Your task to perform on an android device: Open the calendar and show me this week's events? Image 0: 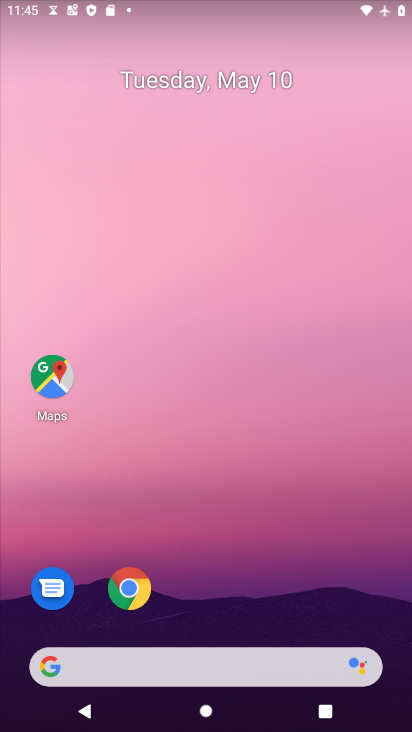
Step 0: drag from (261, 642) to (154, 254)
Your task to perform on an android device: Open the calendar and show me this week's events? Image 1: 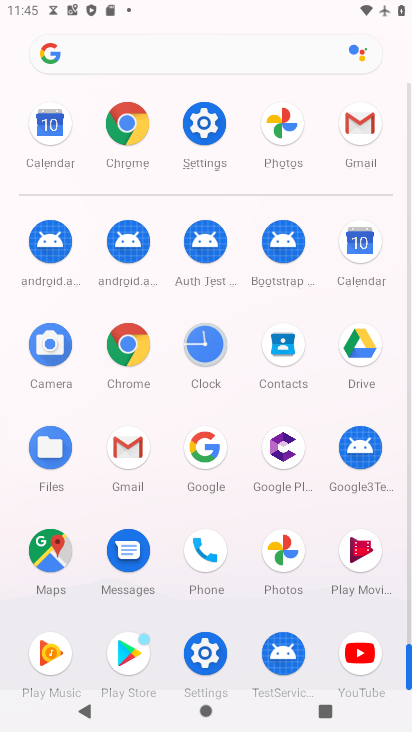
Step 1: click (353, 243)
Your task to perform on an android device: Open the calendar and show me this week's events? Image 2: 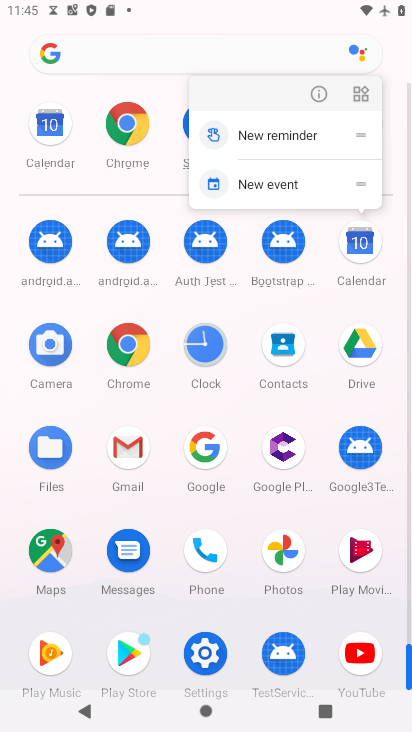
Step 2: click (356, 243)
Your task to perform on an android device: Open the calendar and show me this week's events? Image 3: 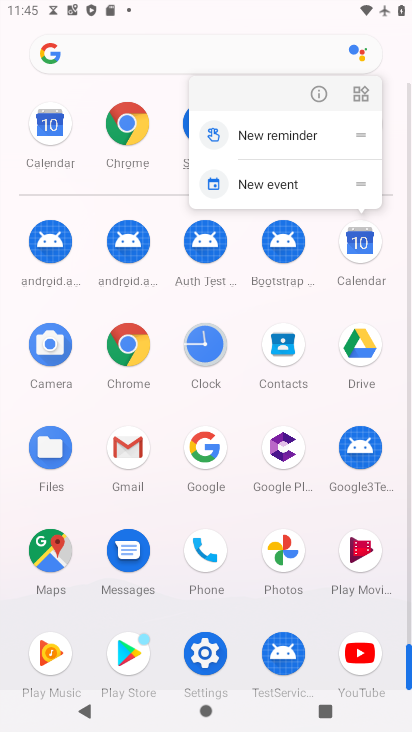
Step 3: click (356, 243)
Your task to perform on an android device: Open the calendar and show me this week's events? Image 4: 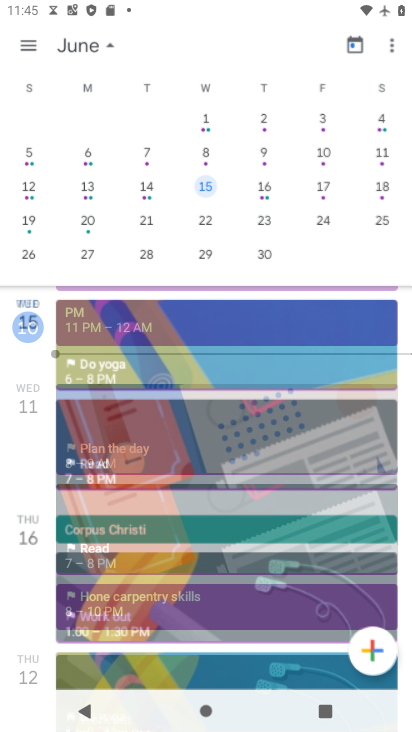
Step 4: click (356, 243)
Your task to perform on an android device: Open the calendar and show me this week's events? Image 5: 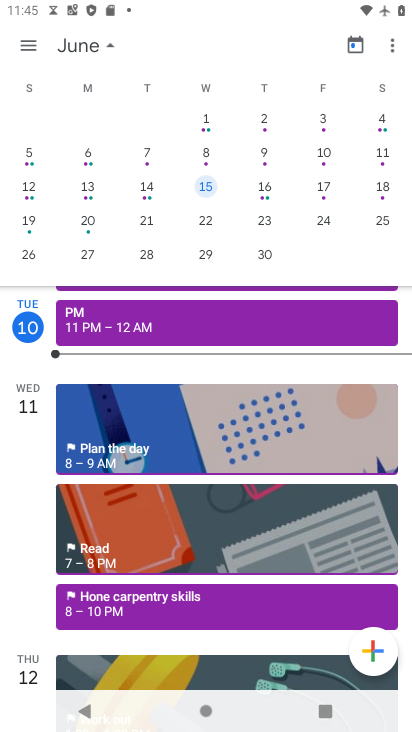
Step 5: drag from (123, 523) to (135, 307)
Your task to perform on an android device: Open the calendar and show me this week's events? Image 6: 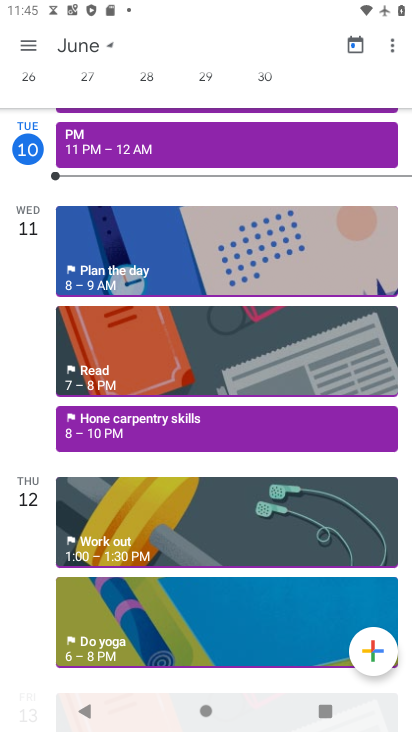
Step 6: drag from (206, 410) to (194, 235)
Your task to perform on an android device: Open the calendar and show me this week's events? Image 7: 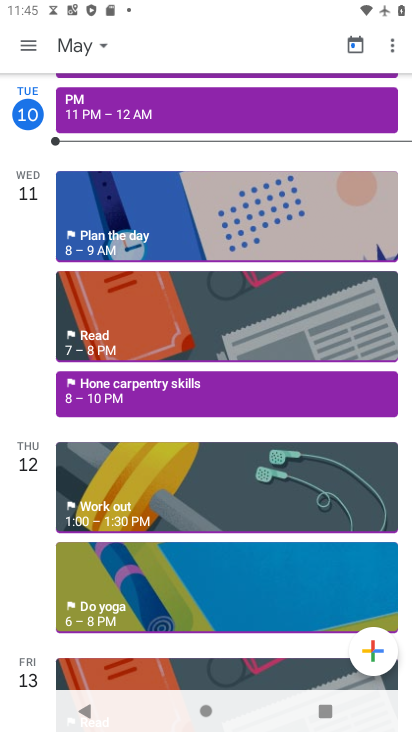
Step 7: drag from (128, 233) to (202, 621)
Your task to perform on an android device: Open the calendar and show me this week's events? Image 8: 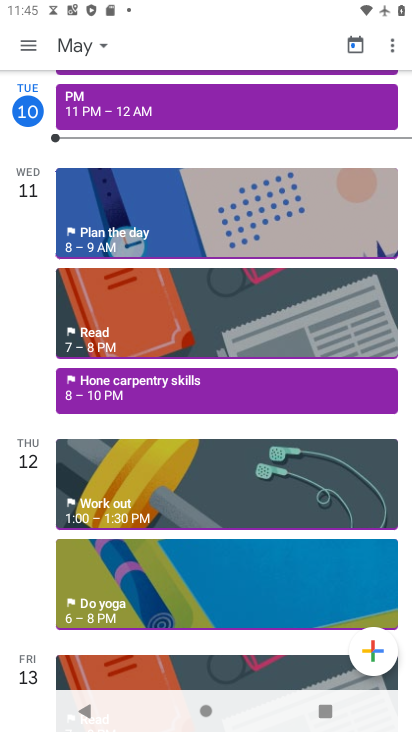
Step 8: drag from (213, 219) to (171, 635)
Your task to perform on an android device: Open the calendar and show me this week's events? Image 9: 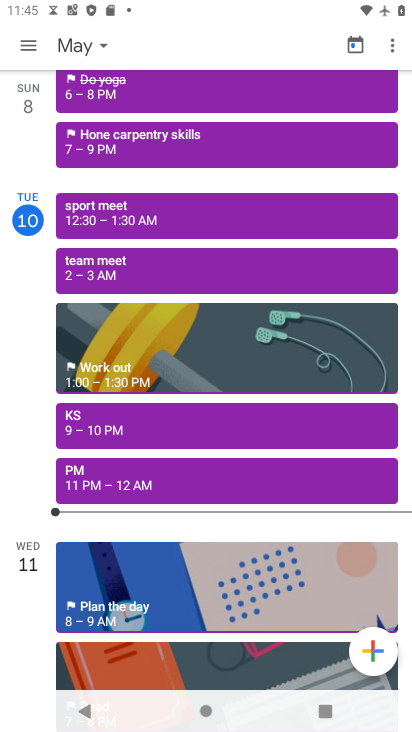
Step 9: drag from (106, 455) to (89, 116)
Your task to perform on an android device: Open the calendar and show me this week's events? Image 10: 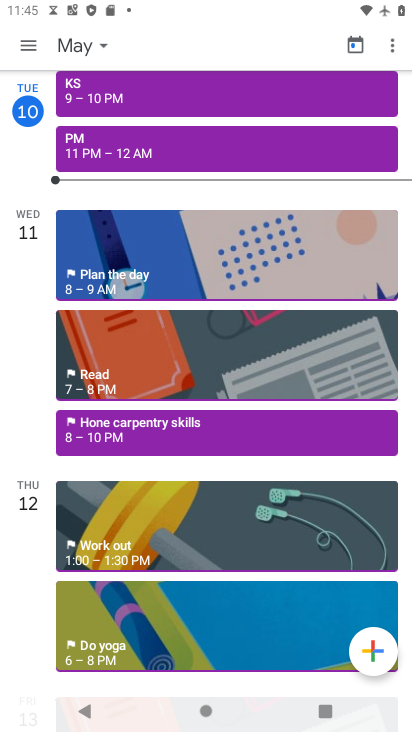
Step 10: drag from (141, 156) to (140, 83)
Your task to perform on an android device: Open the calendar and show me this week's events? Image 11: 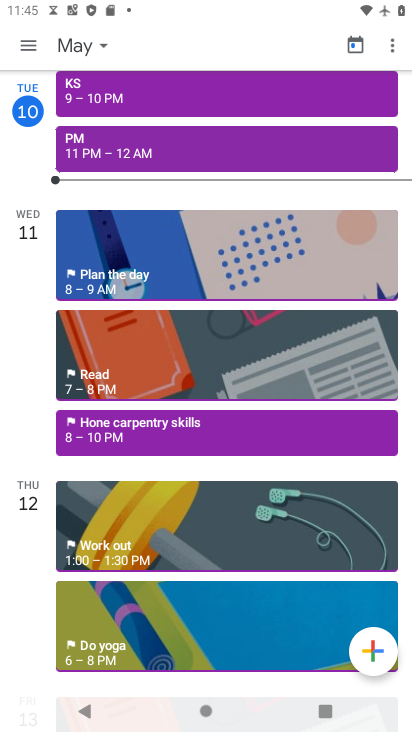
Step 11: drag from (185, 373) to (153, 116)
Your task to perform on an android device: Open the calendar and show me this week's events? Image 12: 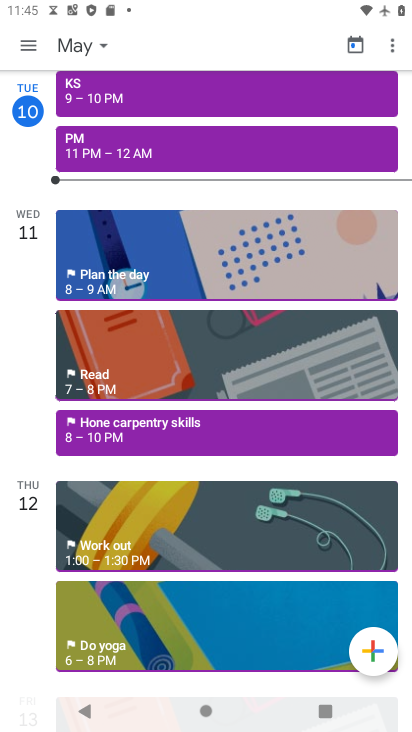
Step 12: drag from (158, 352) to (132, 162)
Your task to perform on an android device: Open the calendar and show me this week's events? Image 13: 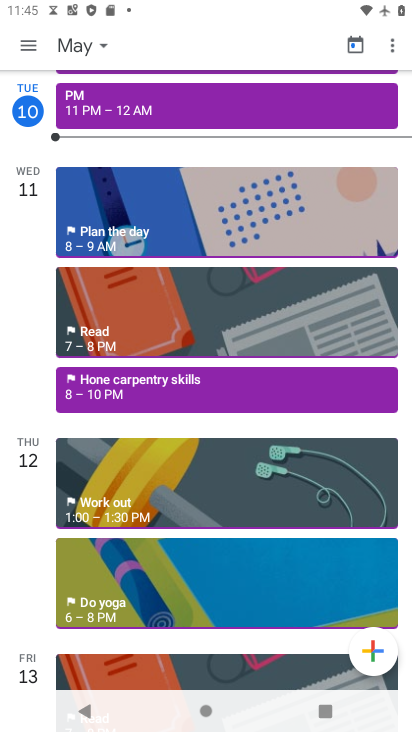
Step 13: drag from (155, 547) to (85, 31)
Your task to perform on an android device: Open the calendar and show me this week's events? Image 14: 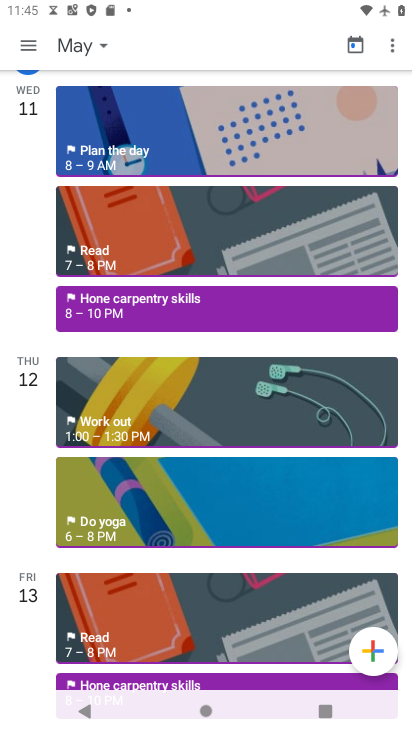
Step 14: click (148, 111)
Your task to perform on an android device: Open the calendar and show me this week's events? Image 15: 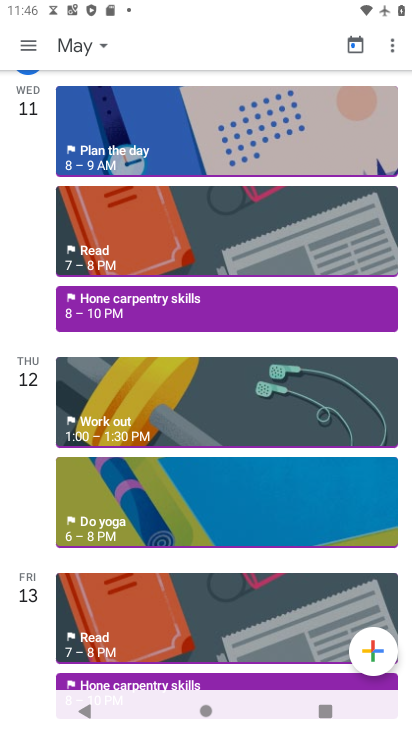
Step 15: drag from (207, 549) to (154, 27)
Your task to perform on an android device: Open the calendar and show me this week's events? Image 16: 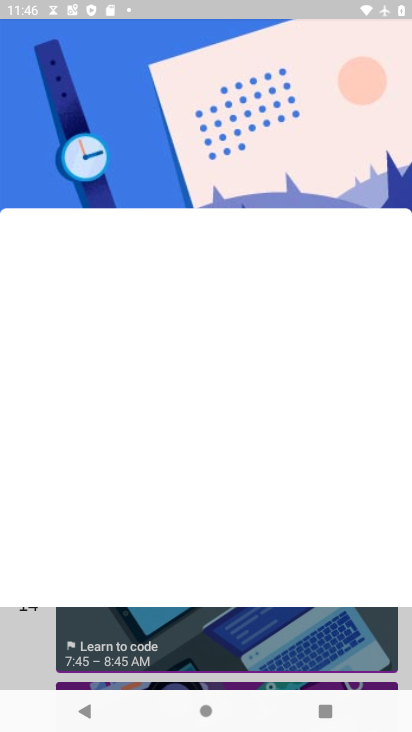
Step 16: drag from (292, 557) to (225, 209)
Your task to perform on an android device: Open the calendar and show me this week's events? Image 17: 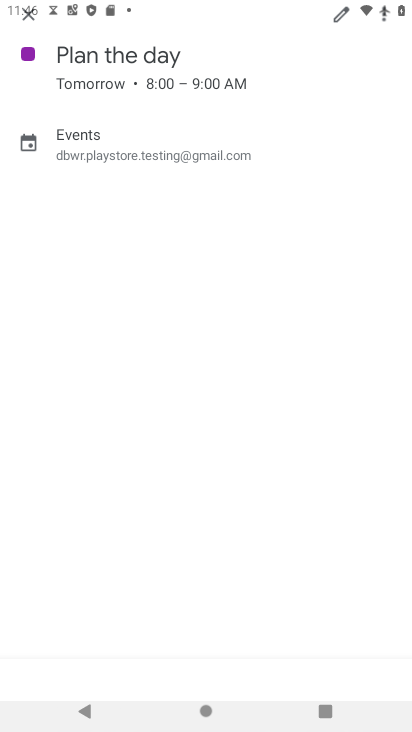
Step 17: drag from (217, 514) to (189, 172)
Your task to perform on an android device: Open the calendar and show me this week's events? Image 18: 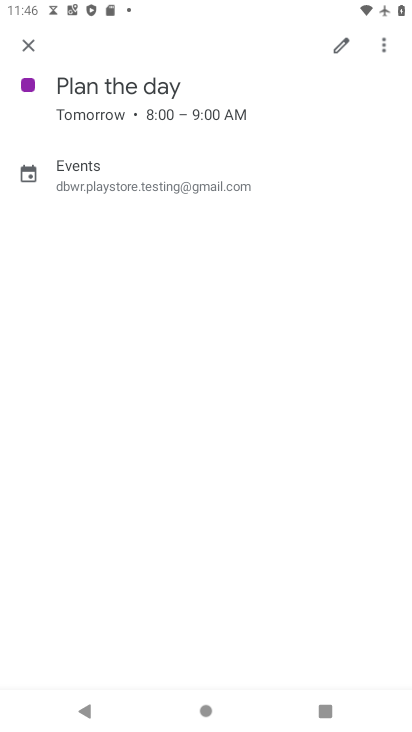
Step 18: click (23, 39)
Your task to perform on an android device: Open the calendar and show me this week's events? Image 19: 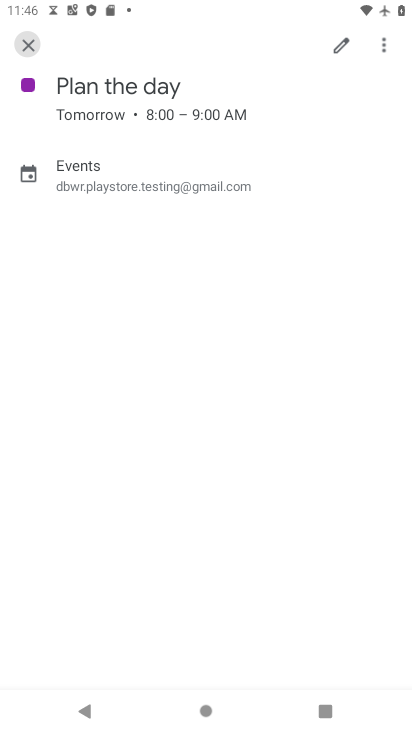
Step 19: click (23, 38)
Your task to perform on an android device: Open the calendar and show me this week's events? Image 20: 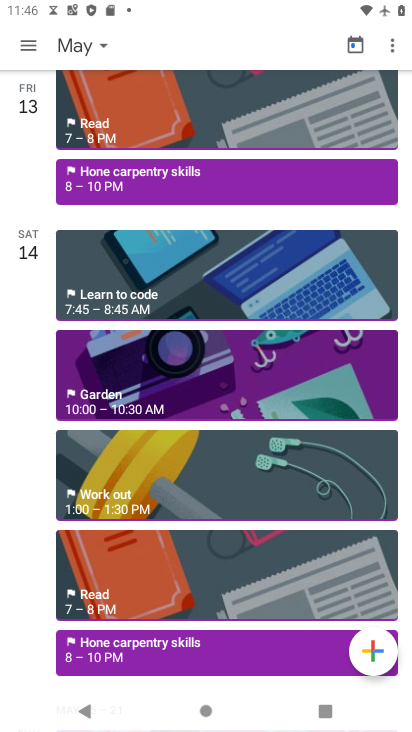
Step 20: task complete